Your task to perform on an android device: Open CNN.com Image 0: 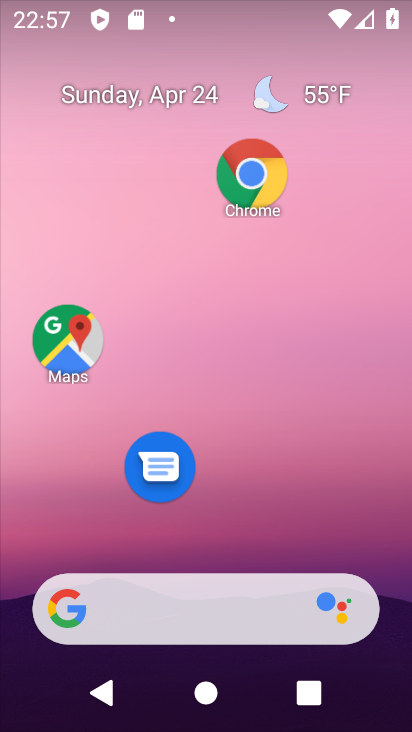
Step 0: drag from (253, 432) to (259, 24)
Your task to perform on an android device: Open CNN.com Image 1: 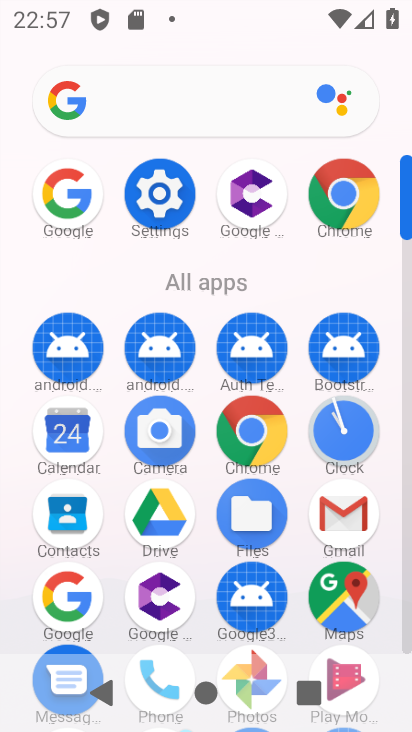
Step 1: click (71, 191)
Your task to perform on an android device: Open CNN.com Image 2: 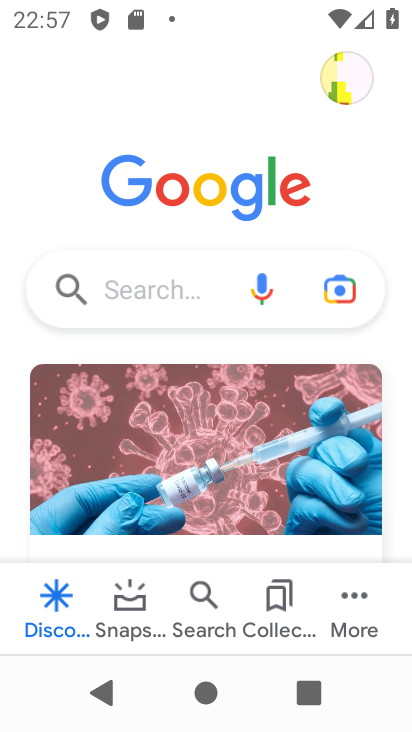
Step 2: click (158, 294)
Your task to perform on an android device: Open CNN.com Image 3: 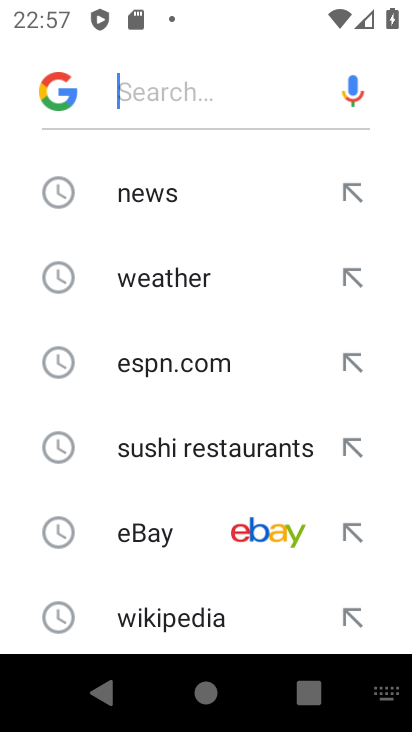
Step 3: drag from (211, 453) to (237, 69)
Your task to perform on an android device: Open CNN.com Image 4: 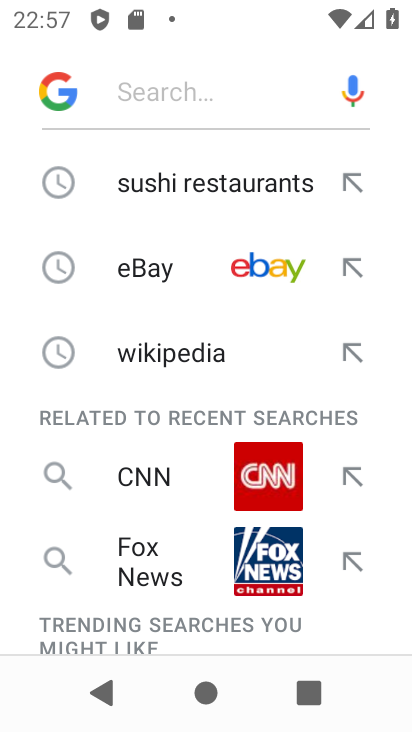
Step 4: click (145, 477)
Your task to perform on an android device: Open CNN.com Image 5: 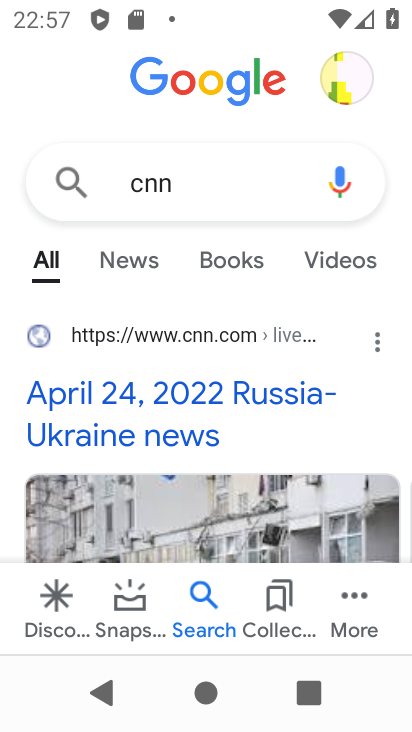
Step 5: task complete